Your task to perform on an android device: Open eBay Image 0: 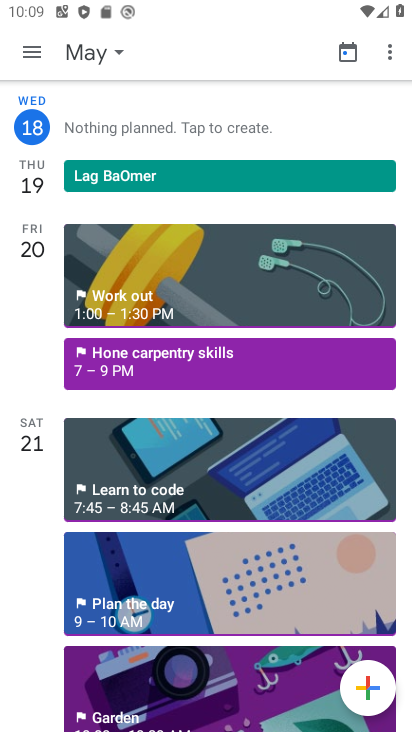
Step 0: press home button
Your task to perform on an android device: Open eBay Image 1: 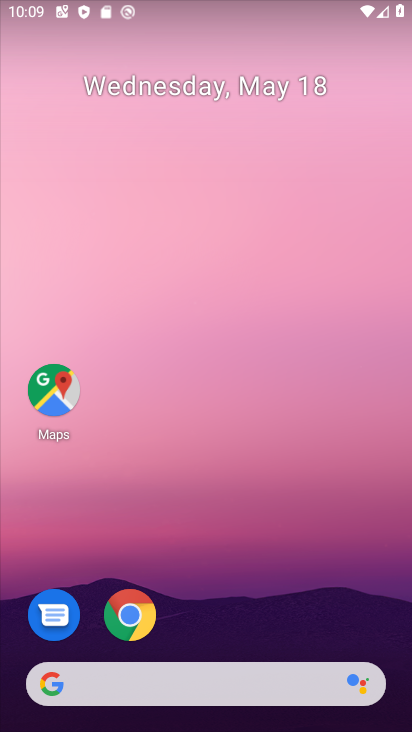
Step 1: click (182, 681)
Your task to perform on an android device: Open eBay Image 2: 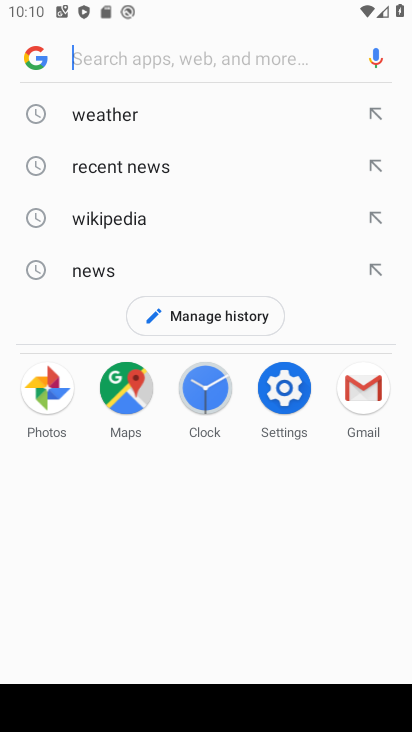
Step 2: type "ebay"
Your task to perform on an android device: Open eBay Image 3: 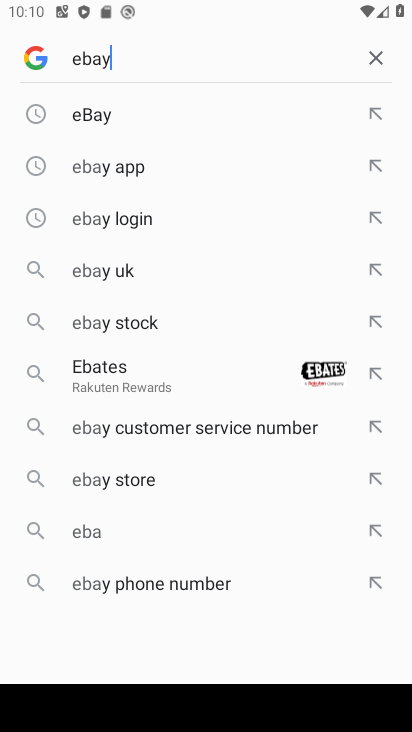
Step 3: type ""
Your task to perform on an android device: Open eBay Image 4: 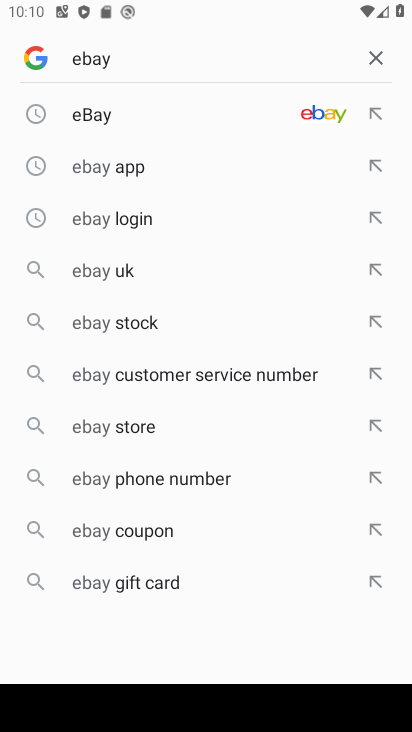
Step 4: click (322, 103)
Your task to perform on an android device: Open eBay Image 5: 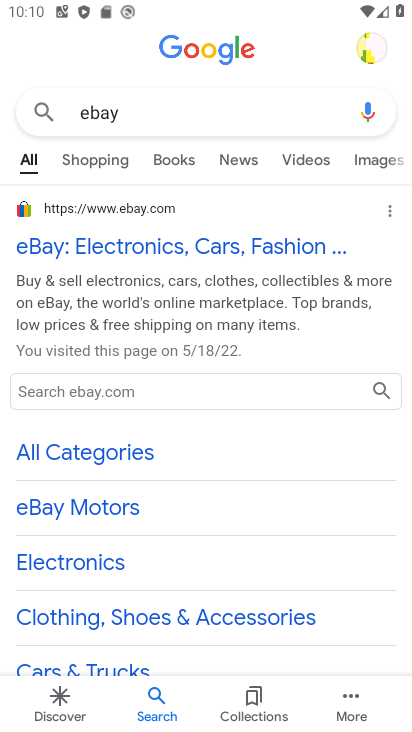
Step 5: task complete